Your task to perform on an android device: Go to wifi settings Image 0: 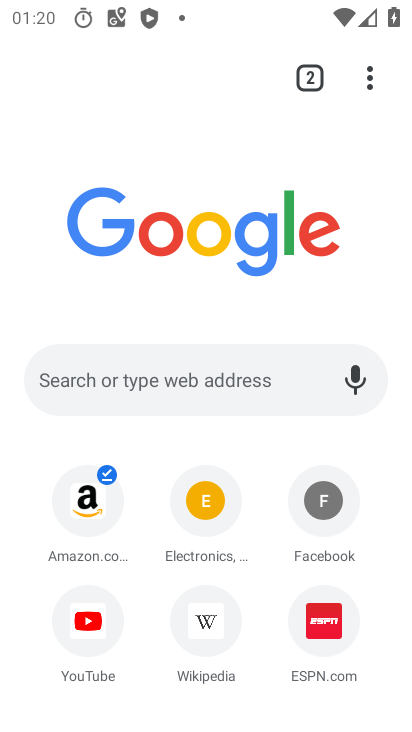
Step 0: drag from (158, 13) to (136, 692)
Your task to perform on an android device: Go to wifi settings Image 1: 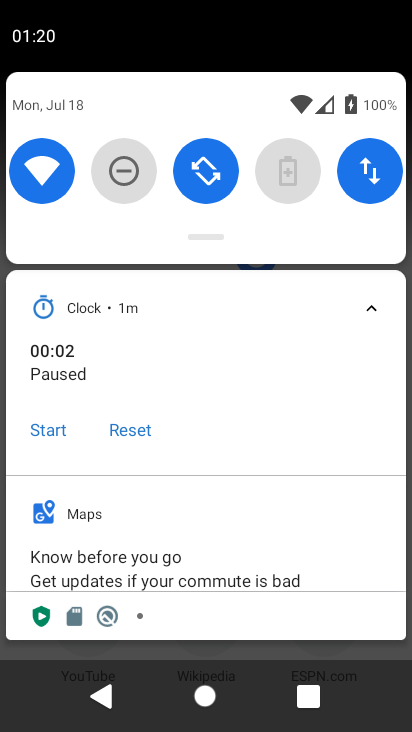
Step 1: click (33, 169)
Your task to perform on an android device: Go to wifi settings Image 2: 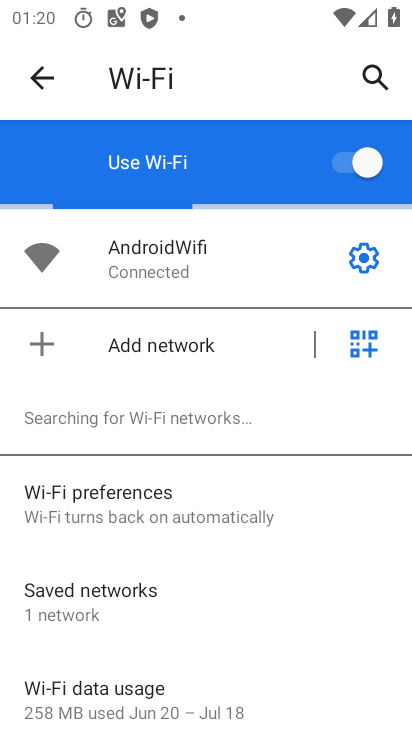
Step 2: task complete